Your task to perform on an android device: Is it going to rain this weekend? Image 0: 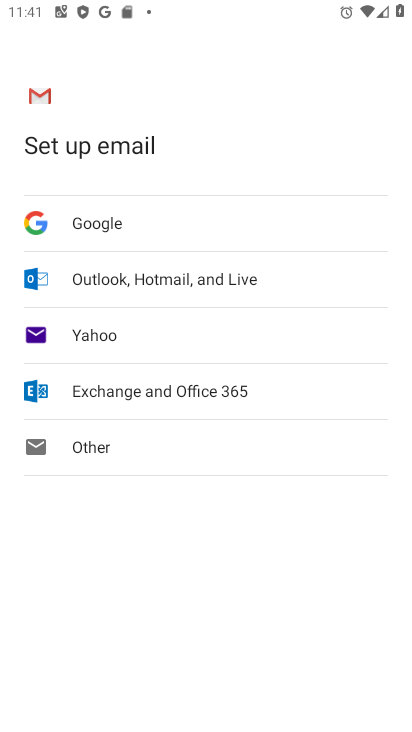
Step 0: press home button
Your task to perform on an android device: Is it going to rain this weekend? Image 1: 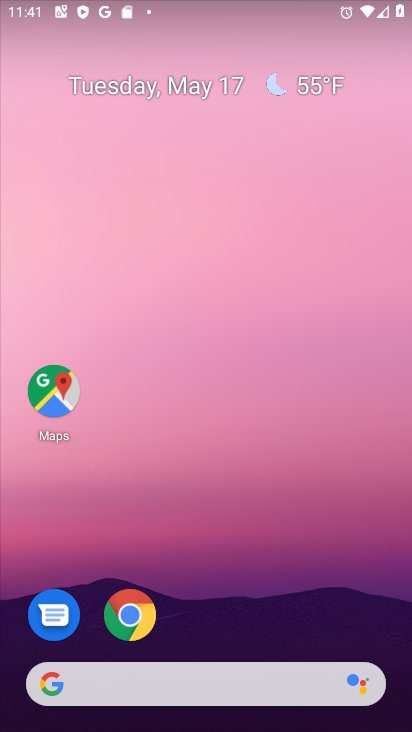
Step 1: click (326, 96)
Your task to perform on an android device: Is it going to rain this weekend? Image 2: 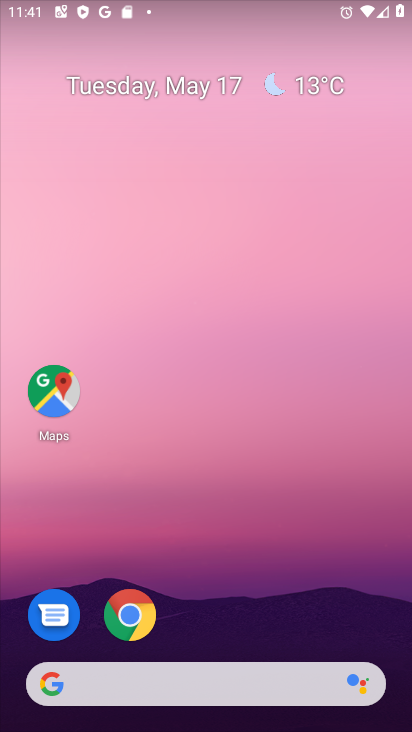
Step 2: click (318, 84)
Your task to perform on an android device: Is it going to rain this weekend? Image 3: 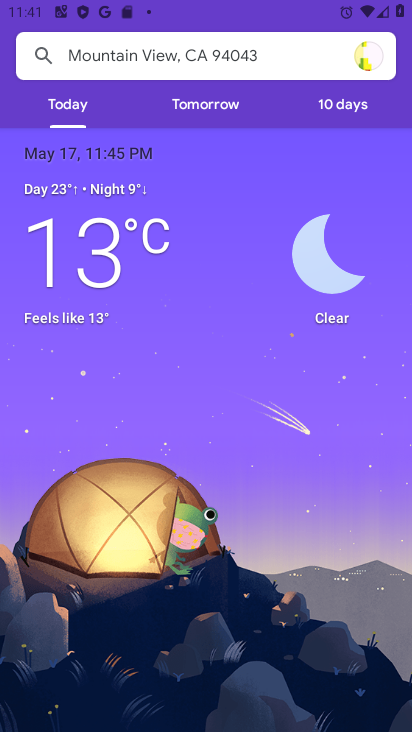
Step 3: click (355, 107)
Your task to perform on an android device: Is it going to rain this weekend? Image 4: 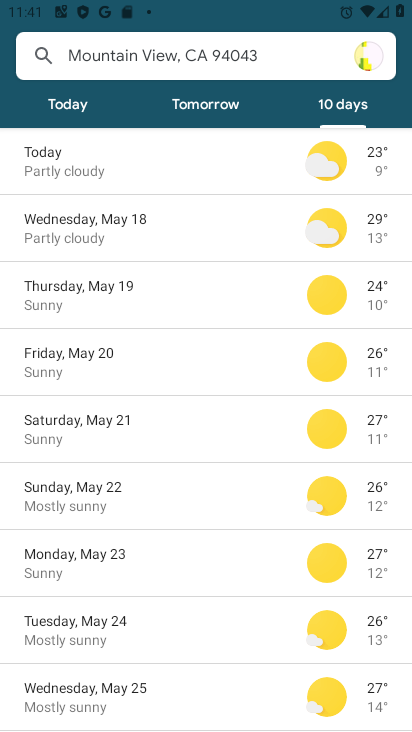
Step 4: task complete